Your task to perform on an android device: Check the weather Image 0: 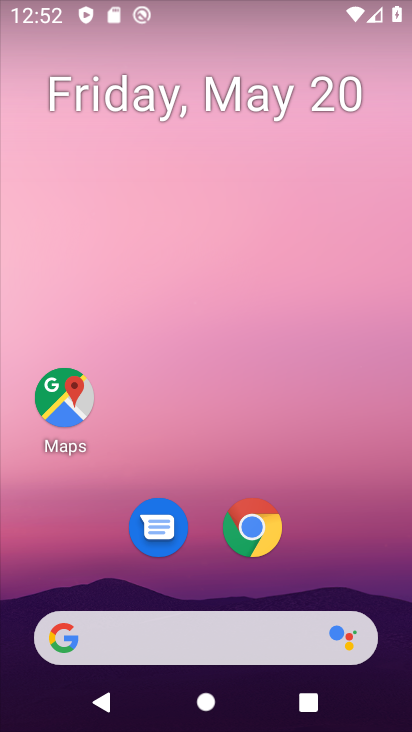
Step 0: press home button
Your task to perform on an android device: Check the weather Image 1: 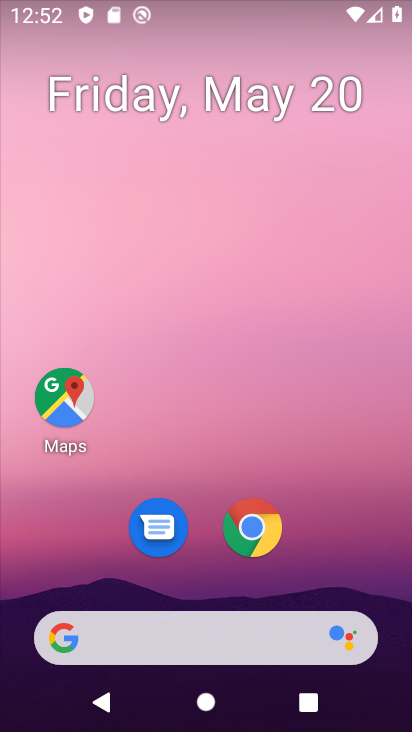
Step 1: drag from (168, 615) to (275, 309)
Your task to perform on an android device: Check the weather Image 2: 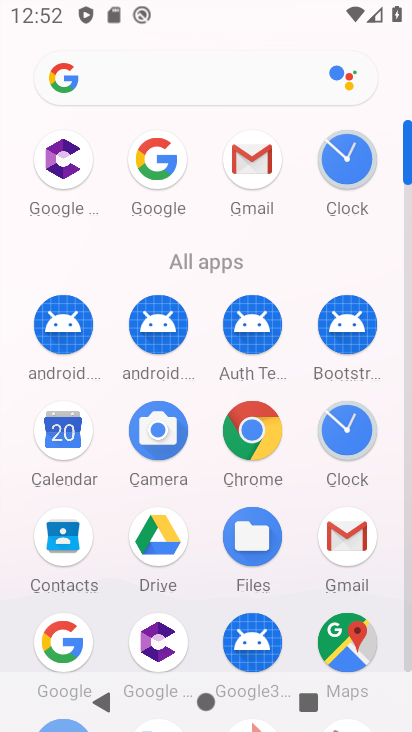
Step 2: click (69, 646)
Your task to perform on an android device: Check the weather Image 3: 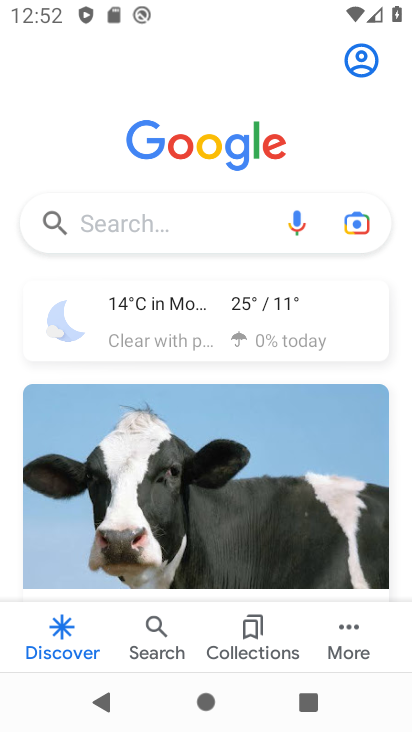
Step 3: click (265, 301)
Your task to perform on an android device: Check the weather Image 4: 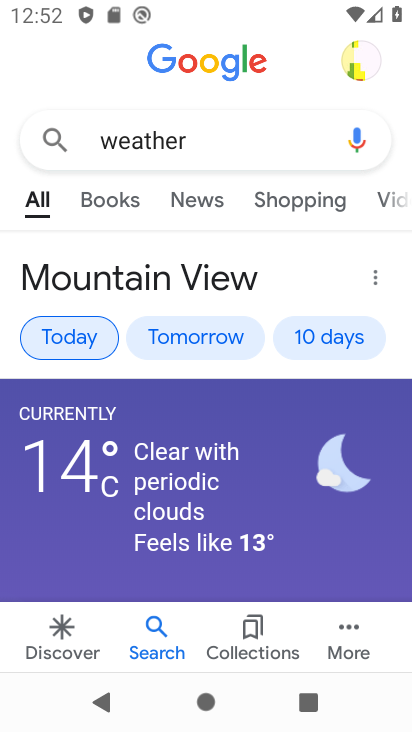
Step 4: task complete